Your task to perform on an android device: Open display settings Image 0: 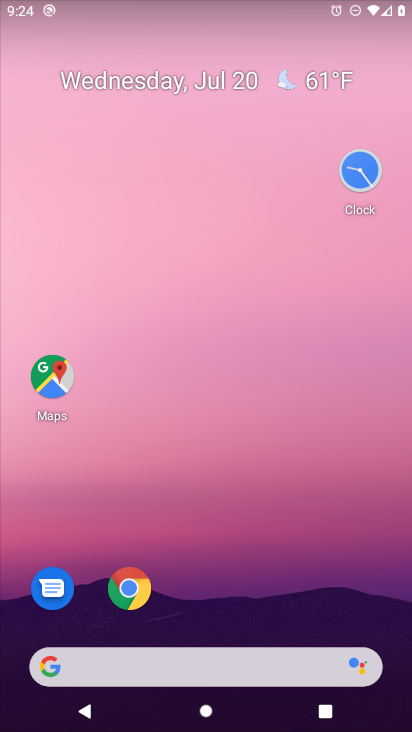
Step 0: drag from (39, 706) to (208, 16)
Your task to perform on an android device: Open display settings Image 1: 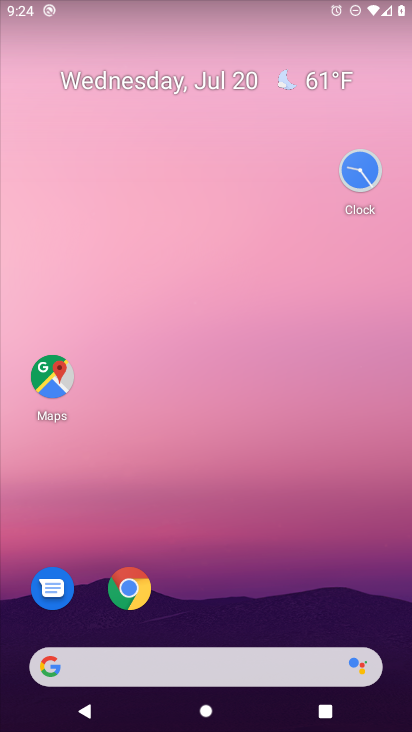
Step 1: drag from (20, 691) to (204, 152)
Your task to perform on an android device: Open display settings Image 2: 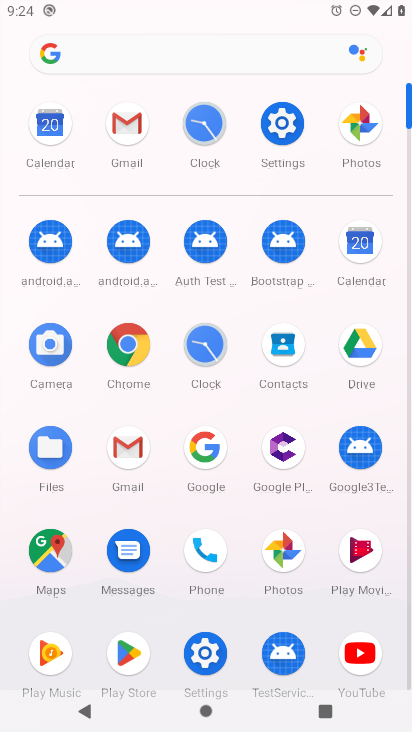
Step 2: click (194, 662)
Your task to perform on an android device: Open display settings Image 3: 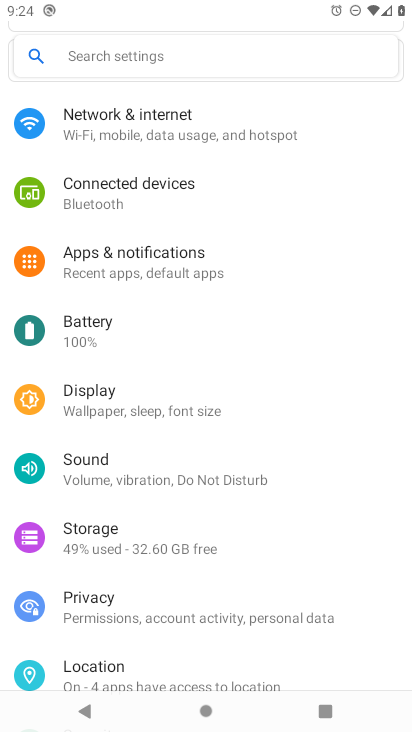
Step 3: click (72, 384)
Your task to perform on an android device: Open display settings Image 4: 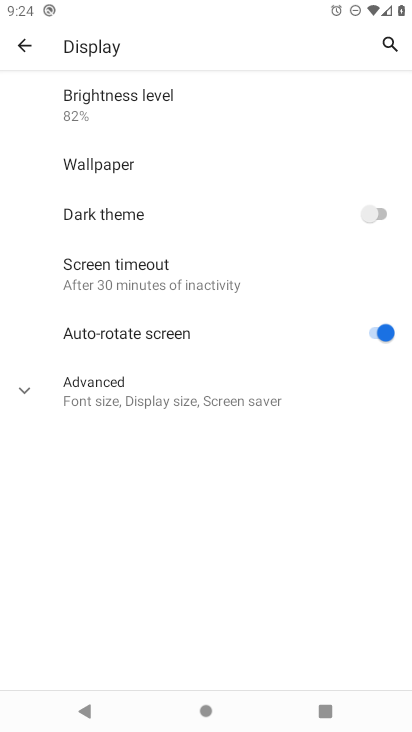
Step 4: task complete